Your task to perform on an android device: Open Chrome and go to settings Image 0: 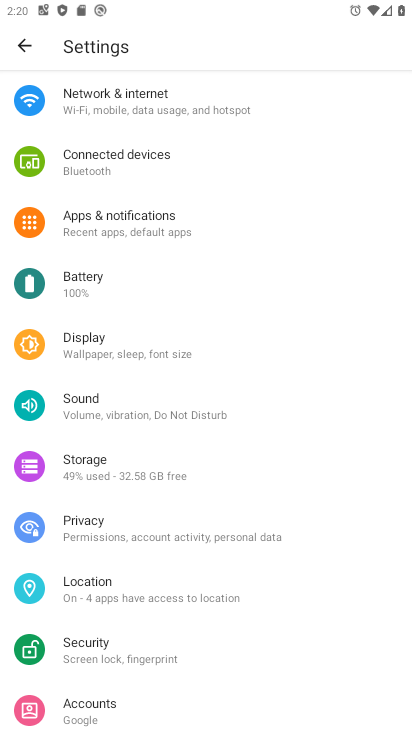
Step 0: press home button
Your task to perform on an android device: Open Chrome and go to settings Image 1: 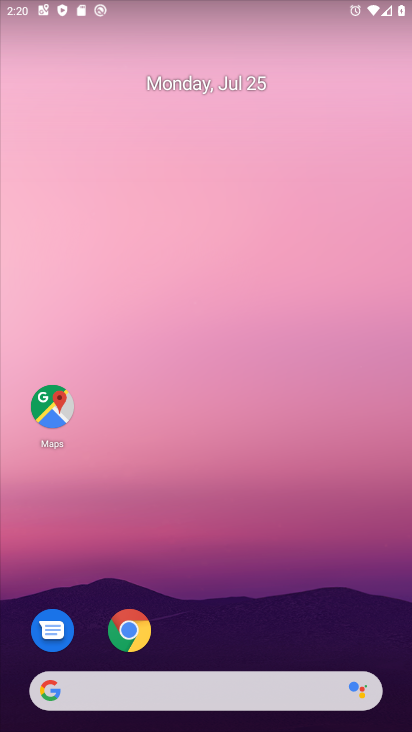
Step 1: click (125, 646)
Your task to perform on an android device: Open Chrome and go to settings Image 2: 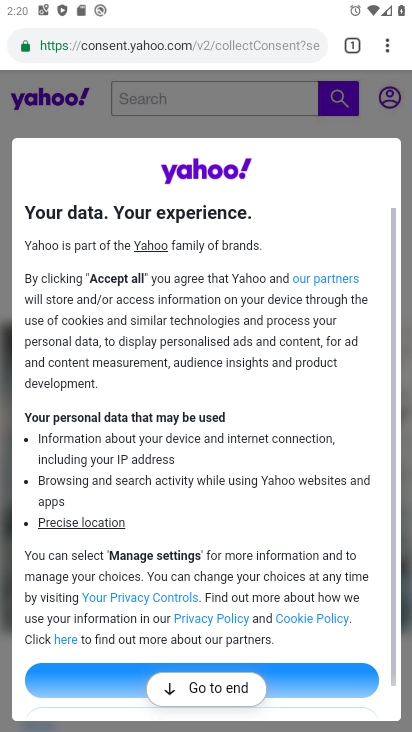
Step 2: click (396, 50)
Your task to perform on an android device: Open Chrome and go to settings Image 3: 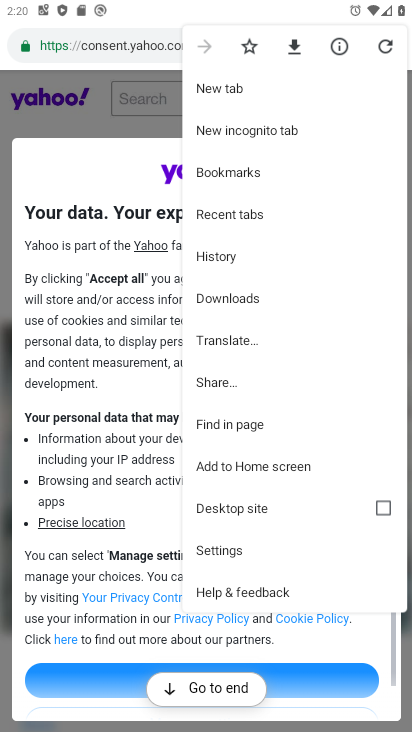
Step 3: click (237, 542)
Your task to perform on an android device: Open Chrome and go to settings Image 4: 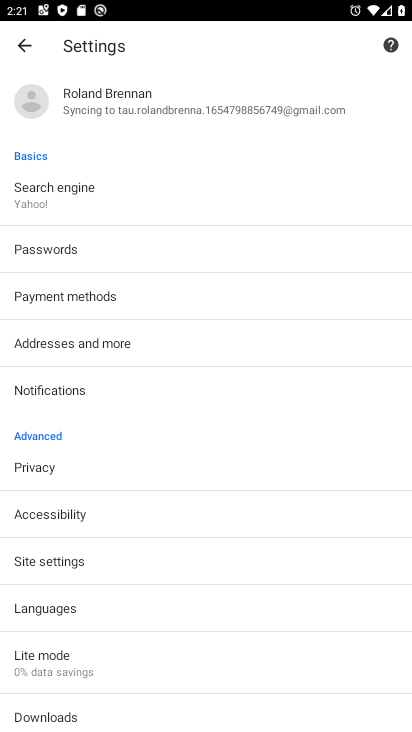
Step 4: task complete